Your task to perform on an android device: set the stopwatch Image 0: 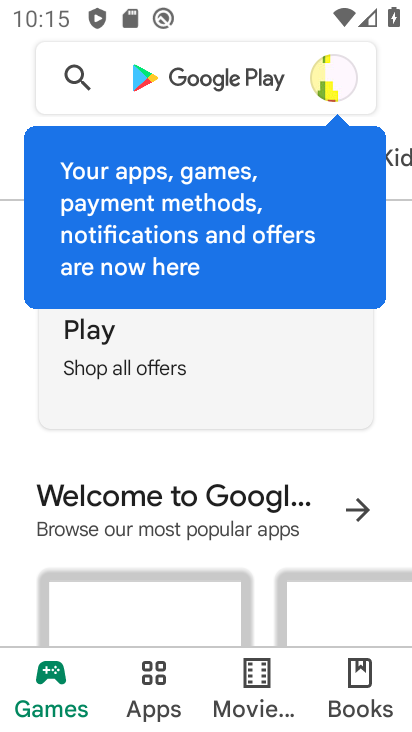
Step 0: press home button
Your task to perform on an android device: set the stopwatch Image 1: 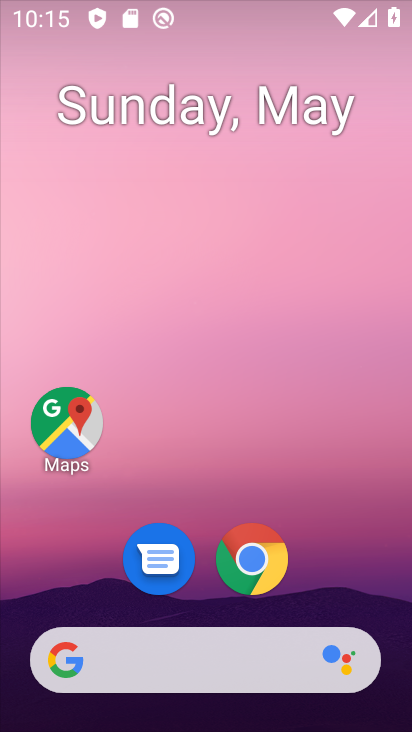
Step 1: drag from (341, 406) to (309, 184)
Your task to perform on an android device: set the stopwatch Image 2: 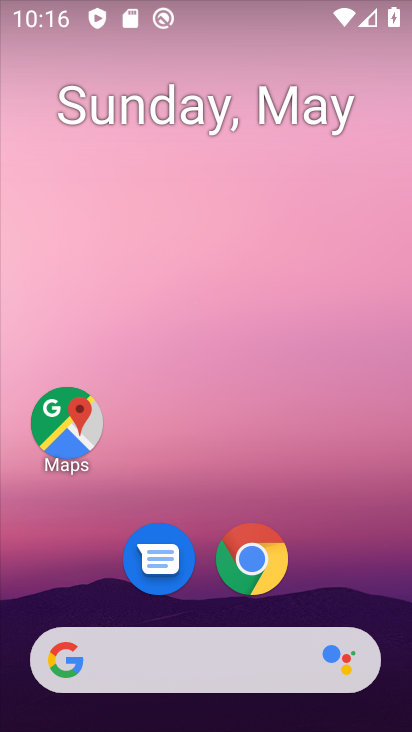
Step 2: drag from (359, 609) to (322, 236)
Your task to perform on an android device: set the stopwatch Image 3: 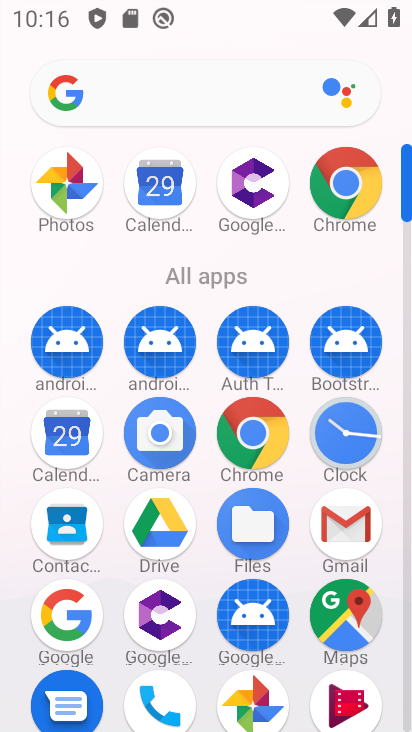
Step 3: drag from (282, 591) to (279, 288)
Your task to perform on an android device: set the stopwatch Image 4: 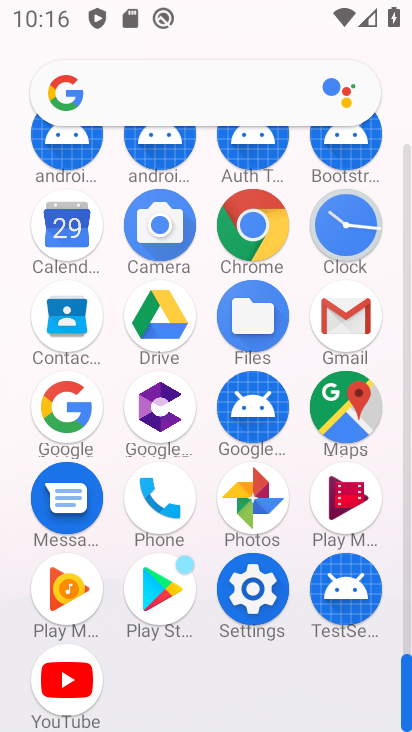
Step 4: drag from (225, 253) to (186, 641)
Your task to perform on an android device: set the stopwatch Image 5: 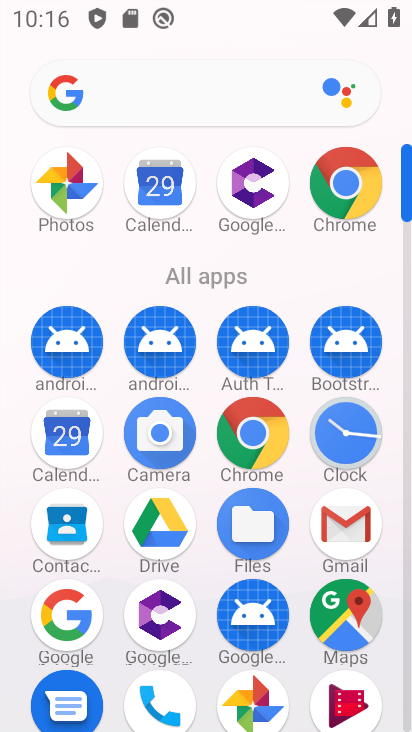
Step 5: click (357, 441)
Your task to perform on an android device: set the stopwatch Image 6: 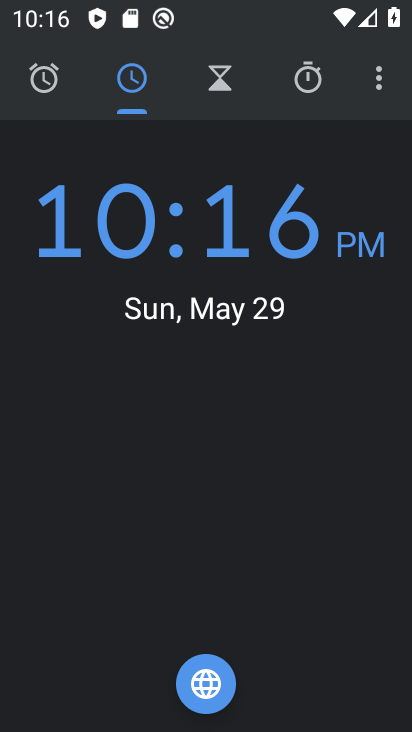
Step 6: click (311, 76)
Your task to perform on an android device: set the stopwatch Image 7: 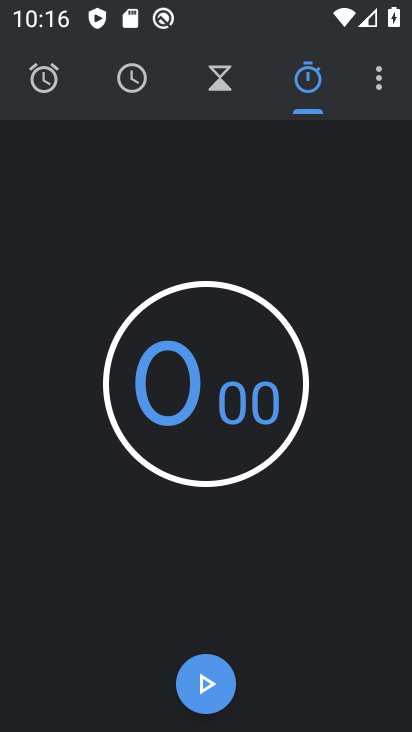
Step 7: click (219, 710)
Your task to perform on an android device: set the stopwatch Image 8: 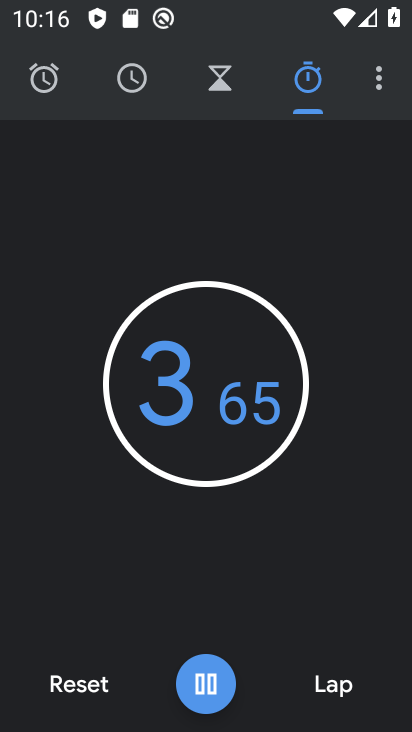
Step 8: click (211, 687)
Your task to perform on an android device: set the stopwatch Image 9: 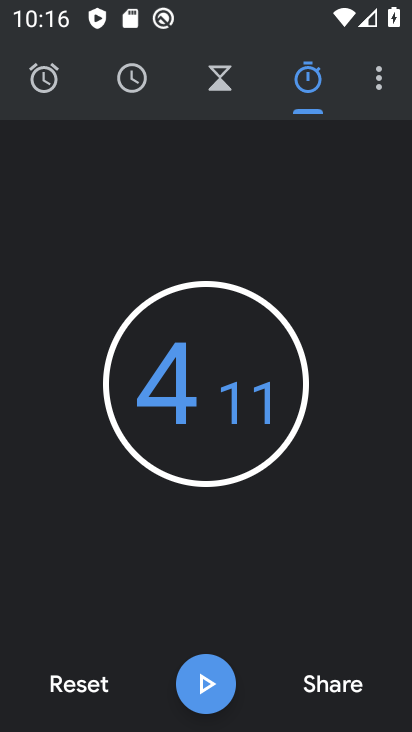
Step 9: task complete